Your task to perform on an android device: snooze an email in the gmail app Image 0: 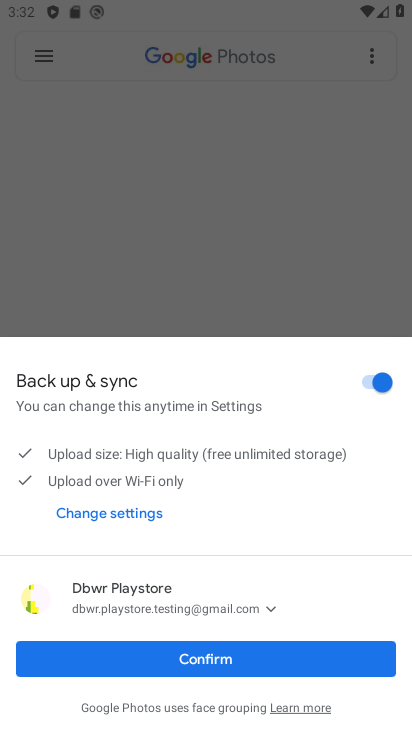
Step 0: press home button
Your task to perform on an android device: snooze an email in the gmail app Image 1: 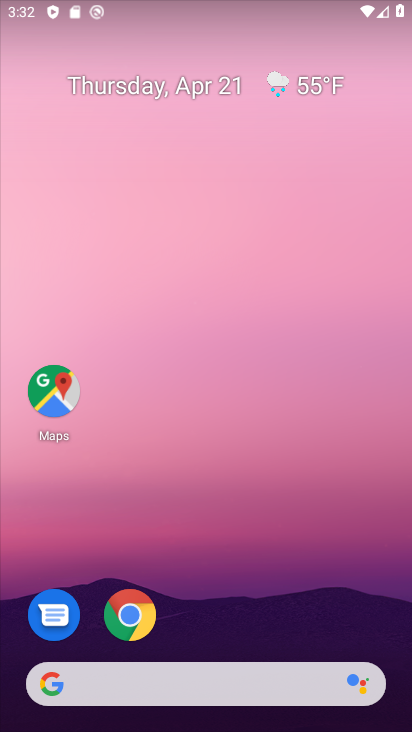
Step 1: drag from (253, 547) to (264, 139)
Your task to perform on an android device: snooze an email in the gmail app Image 2: 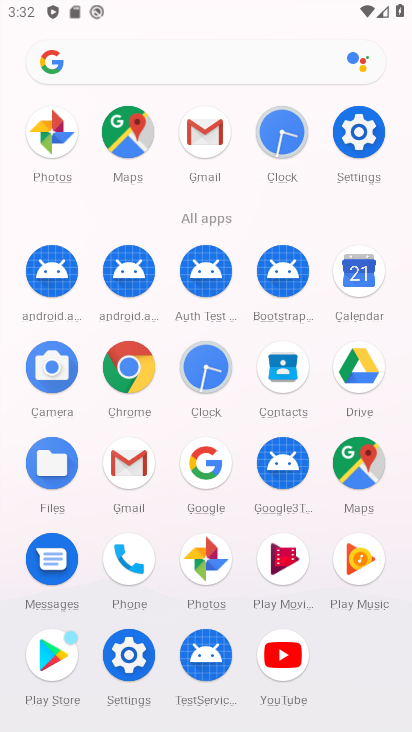
Step 2: click (201, 138)
Your task to perform on an android device: snooze an email in the gmail app Image 3: 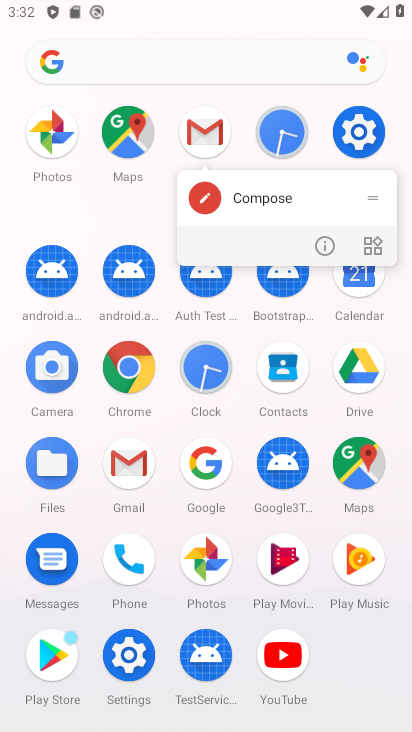
Step 3: click (200, 108)
Your task to perform on an android device: snooze an email in the gmail app Image 4: 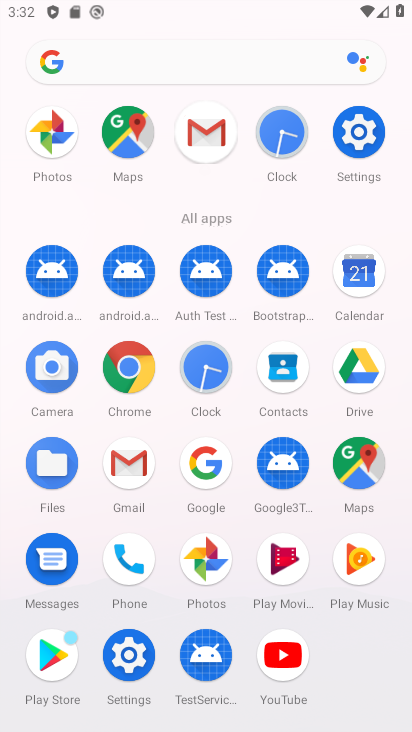
Step 4: click (212, 127)
Your task to perform on an android device: snooze an email in the gmail app Image 5: 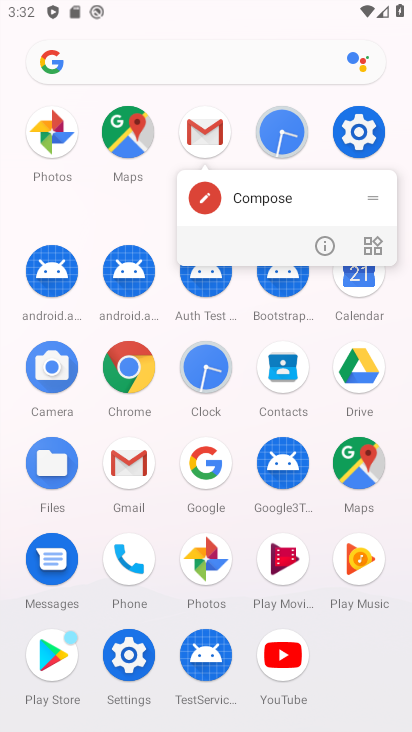
Step 5: click (194, 121)
Your task to perform on an android device: snooze an email in the gmail app Image 6: 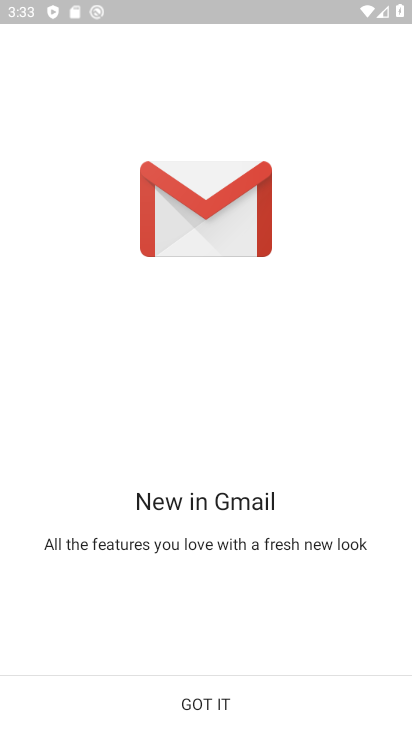
Step 6: click (214, 693)
Your task to perform on an android device: snooze an email in the gmail app Image 7: 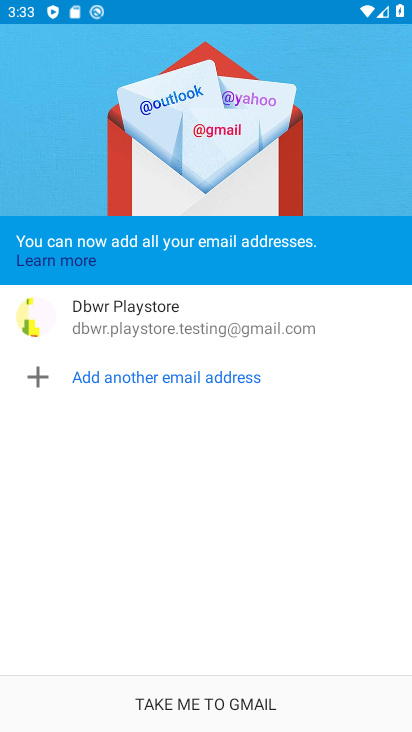
Step 7: click (178, 695)
Your task to perform on an android device: snooze an email in the gmail app Image 8: 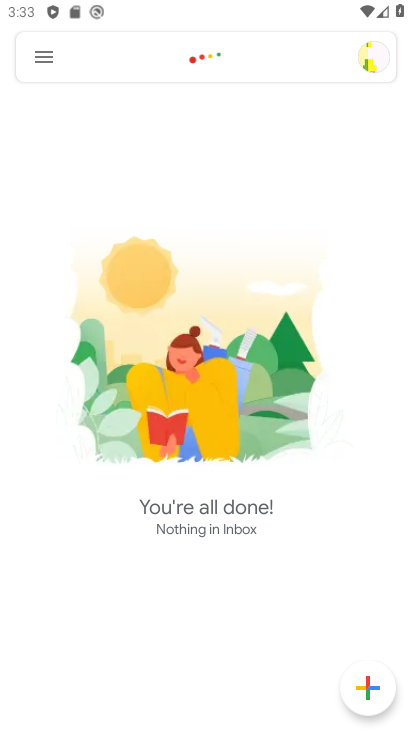
Step 8: click (37, 58)
Your task to perform on an android device: snooze an email in the gmail app Image 9: 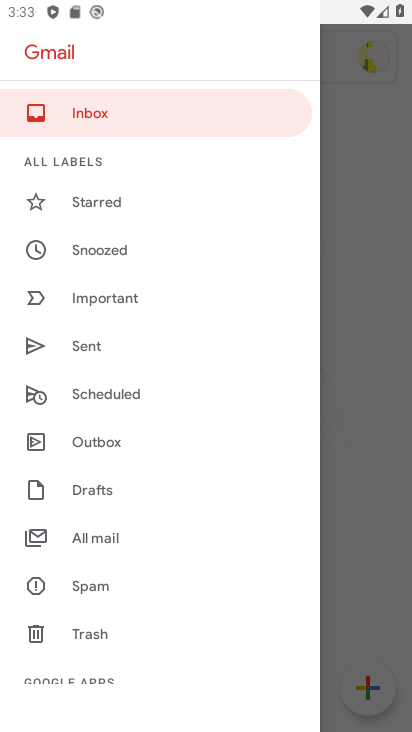
Step 9: click (112, 251)
Your task to perform on an android device: snooze an email in the gmail app Image 10: 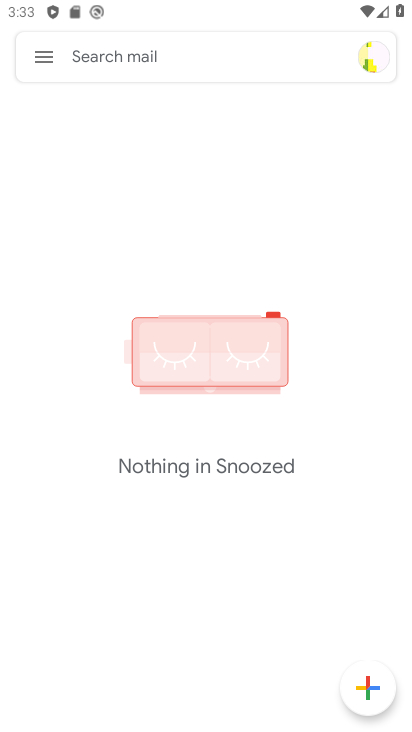
Step 10: click (33, 27)
Your task to perform on an android device: snooze an email in the gmail app Image 11: 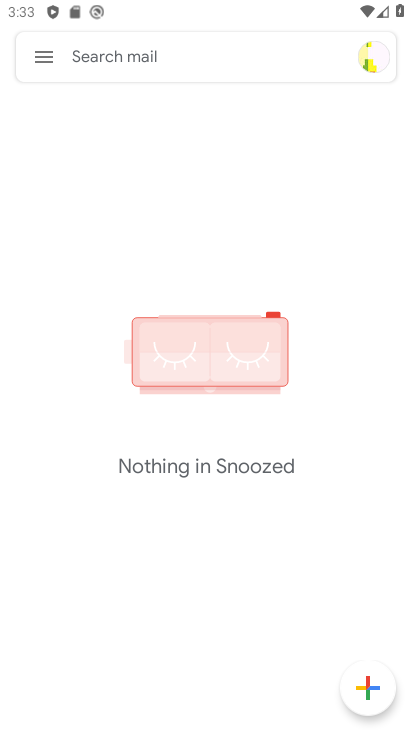
Step 11: click (40, 49)
Your task to perform on an android device: snooze an email in the gmail app Image 12: 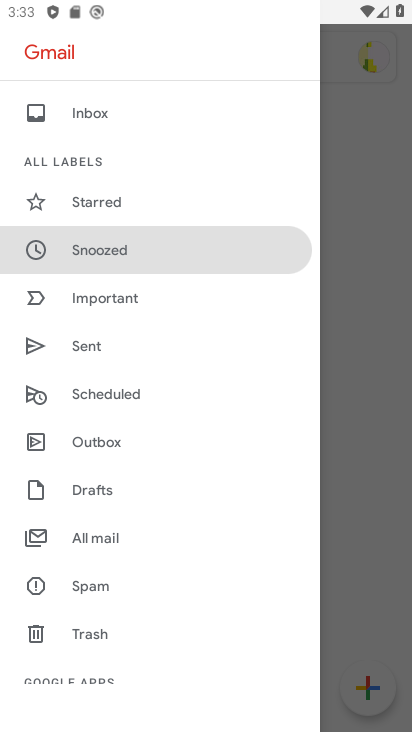
Step 12: click (127, 542)
Your task to perform on an android device: snooze an email in the gmail app Image 13: 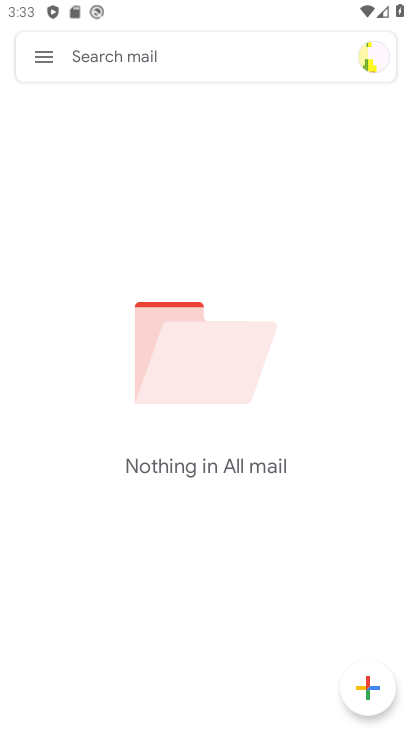
Step 13: task complete